Your task to perform on an android device: Open the web browser Image 0: 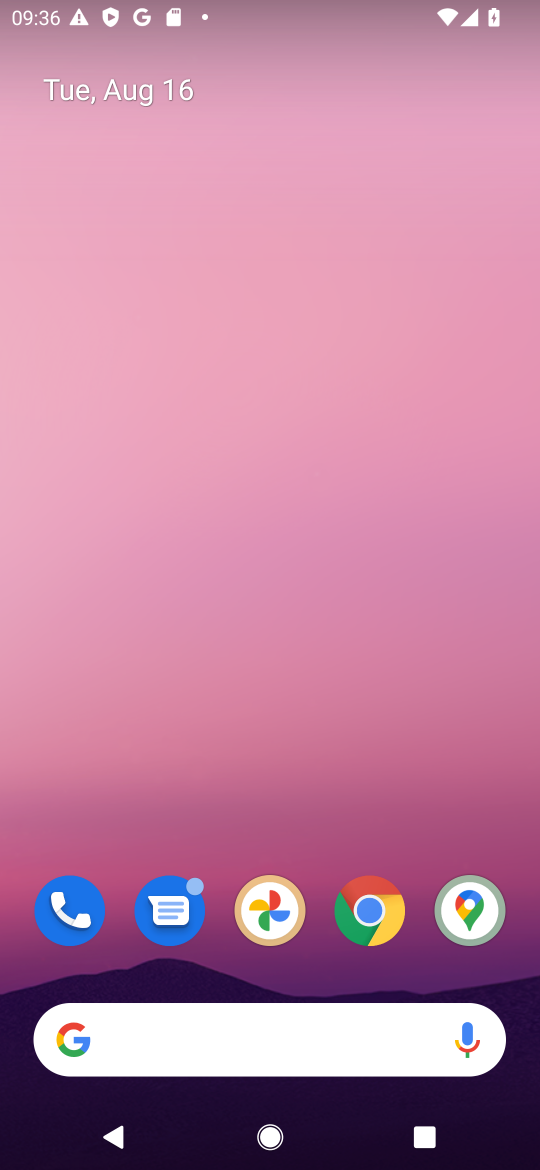
Step 0: click (337, 1054)
Your task to perform on an android device: Open the web browser Image 1: 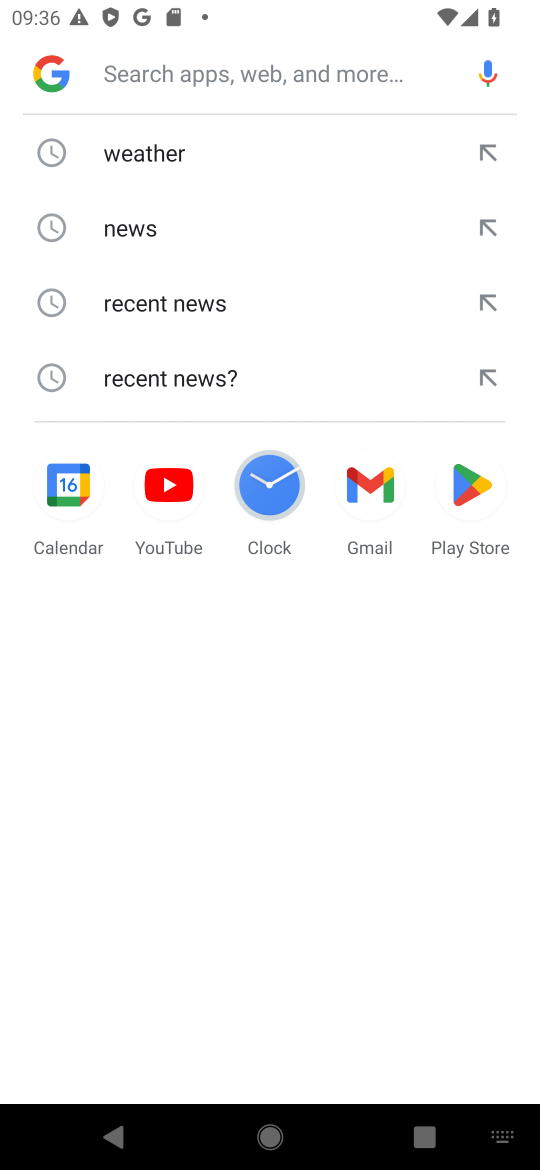
Step 1: task complete